Your task to perform on an android device: check the backup settings in the google photos Image 0: 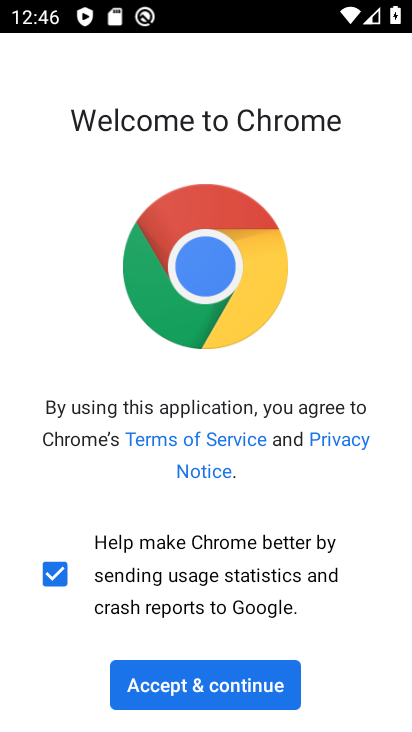
Step 0: click (187, 685)
Your task to perform on an android device: check the backup settings in the google photos Image 1: 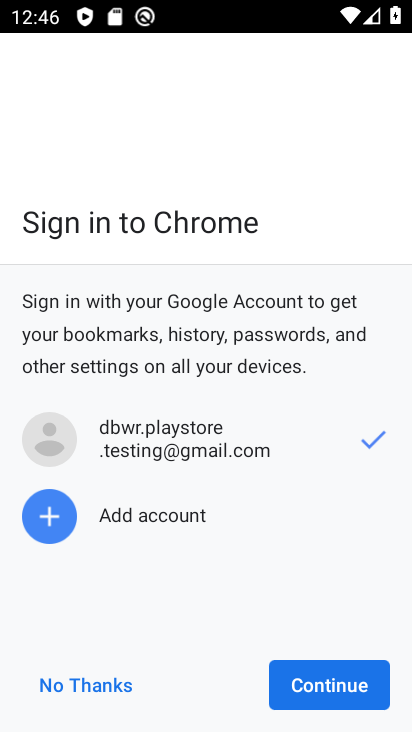
Step 1: press home button
Your task to perform on an android device: check the backup settings in the google photos Image 2: 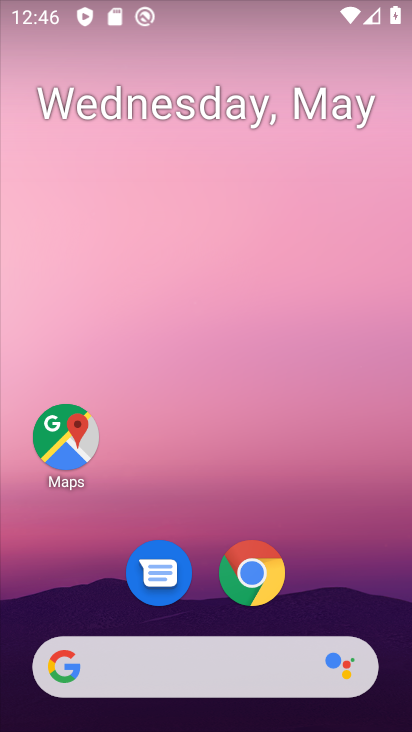
Step 2: drag from (357, 598) to (392, 27)
Your task to perform on an android device: check the backup settings in the google photos Image 3: 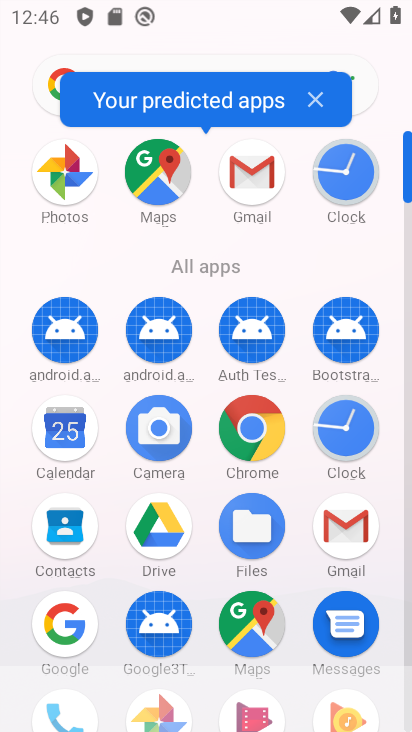
Step 3: click (405, 660)
Your task to perform on an android device: check the backup settings in the google photos Image 4: 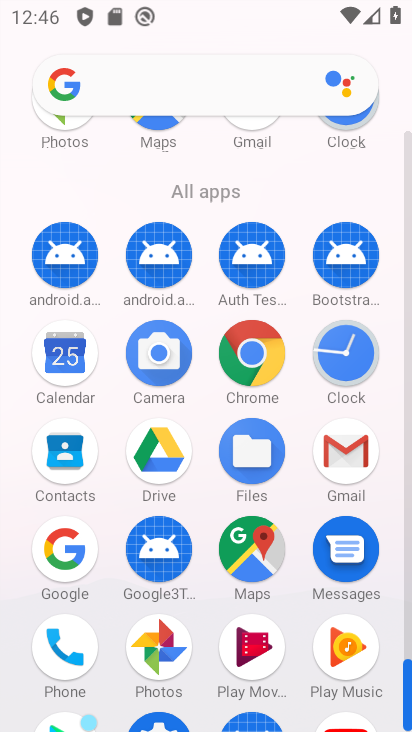
Step 4: click (159, 646)
Your task to perform on an android device: check the backup settings in the google photos Image 5: 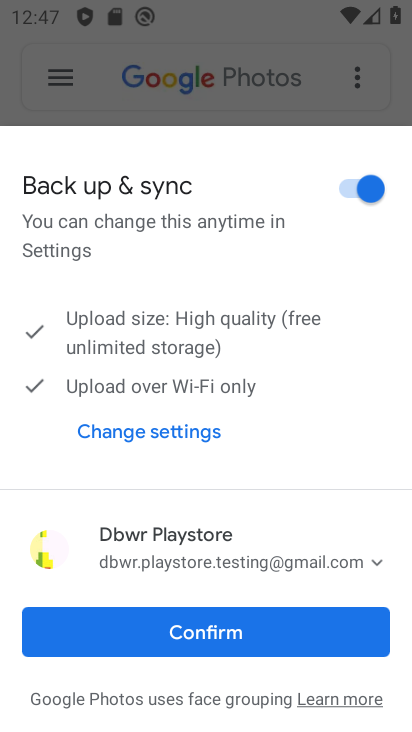
Step 5: click (159, 635)
Your task to perform on an android device: check the backup settings in the google photos Image 6: 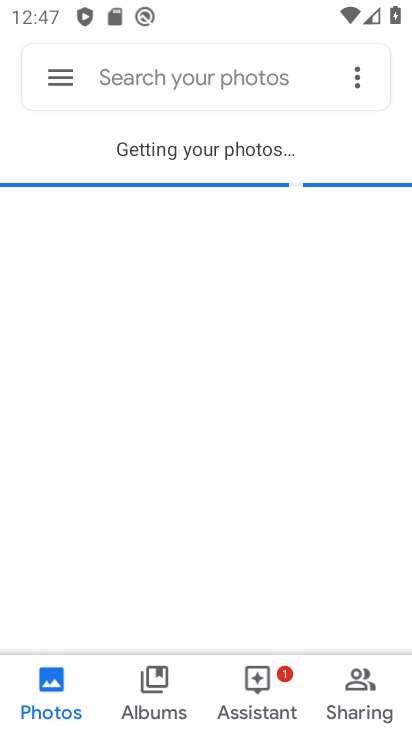
Step 6: click (65, 76)
Your task to perform on an android device: check the backup settings in the google photos Image 7: 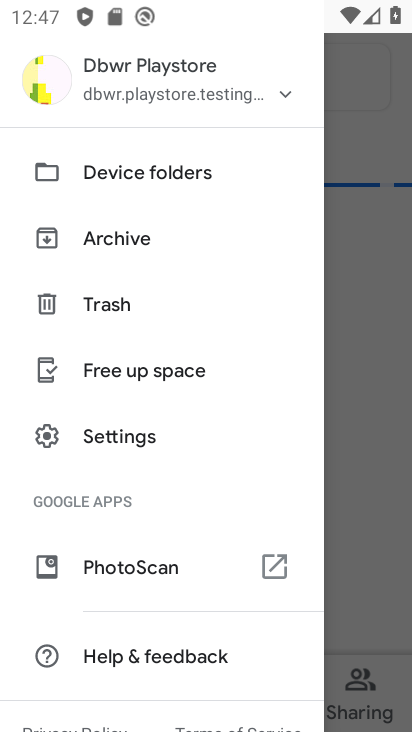
Step 7: click (146, 433)
Your task to perform on an android device: check the backup settings in the google photos Image 8: 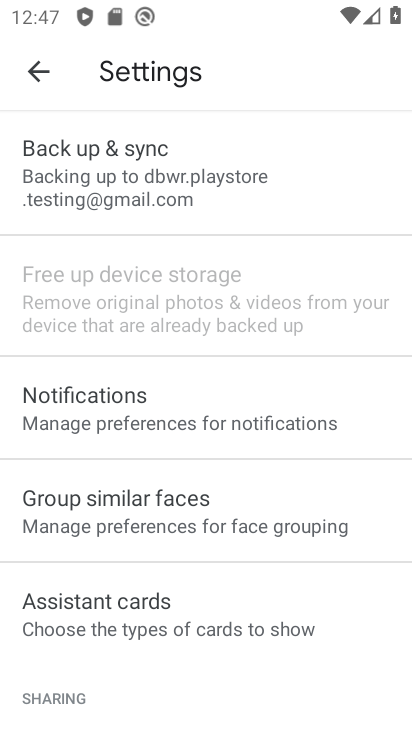
Step 8: click (127, 168)
Your task to perform on an android device: check the backup settings in the google photos Image 9: 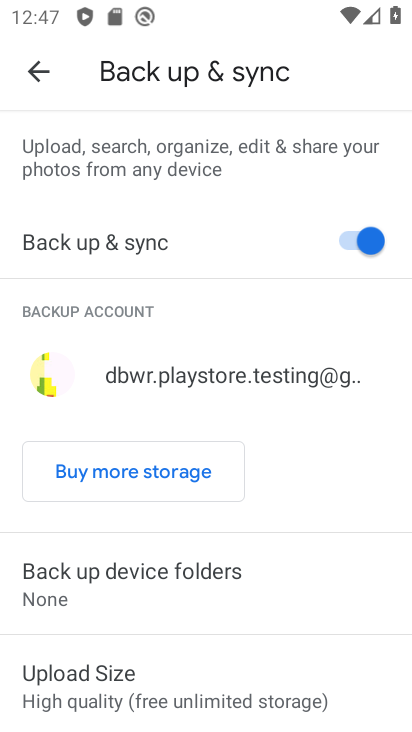
Step 9: task complete